Your task to perform on an android device: Go to location settings Image 0: 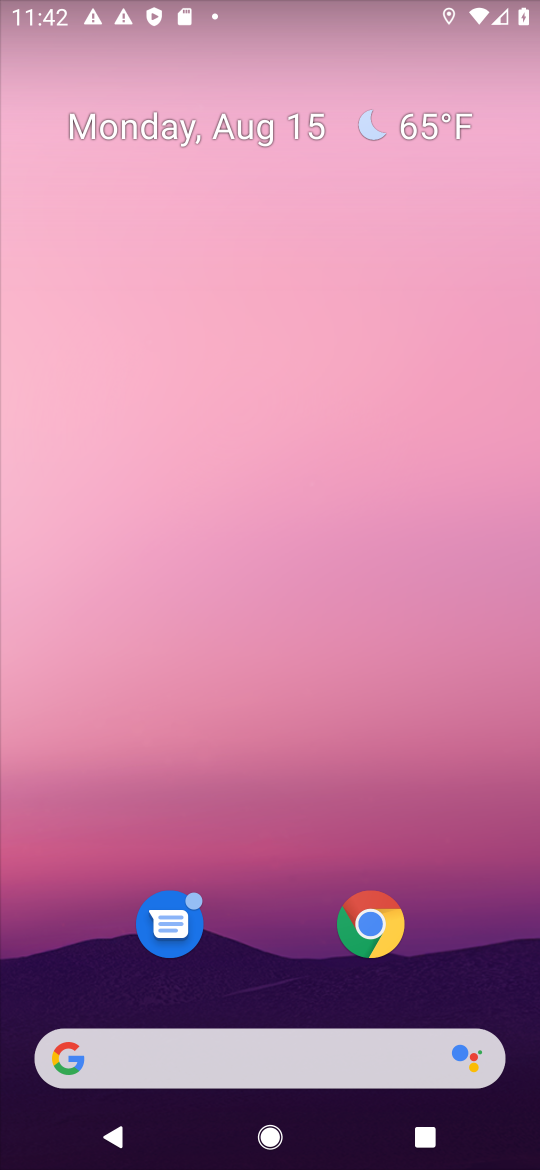
Step 0: press home button
Your task to perform on an android device: Go to location settings Image 1: 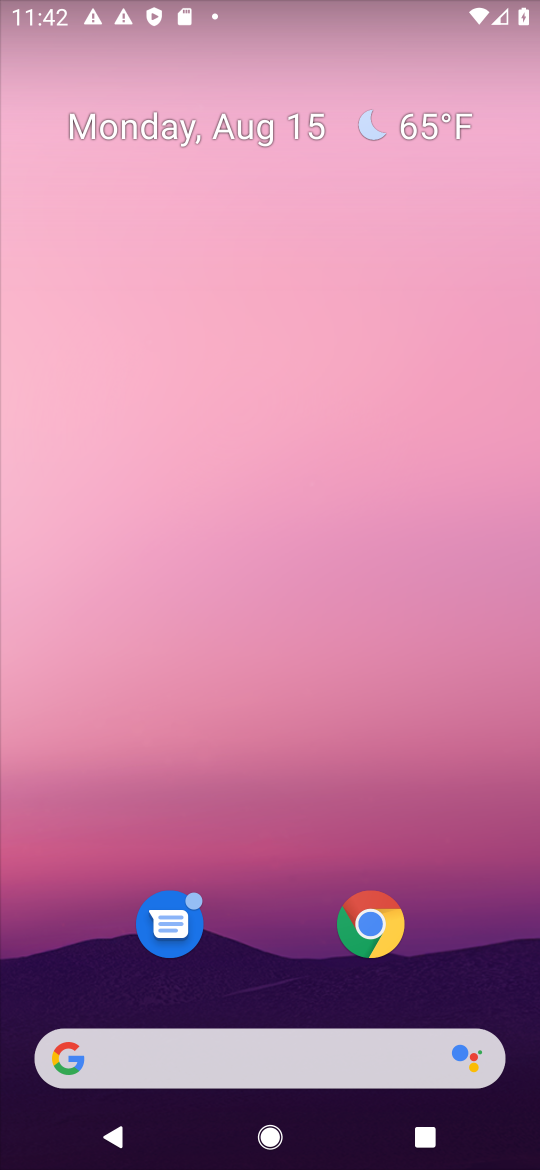
Step 1: click (493, 876)
Your task to perform on an android device: Go to location settings Image 2: 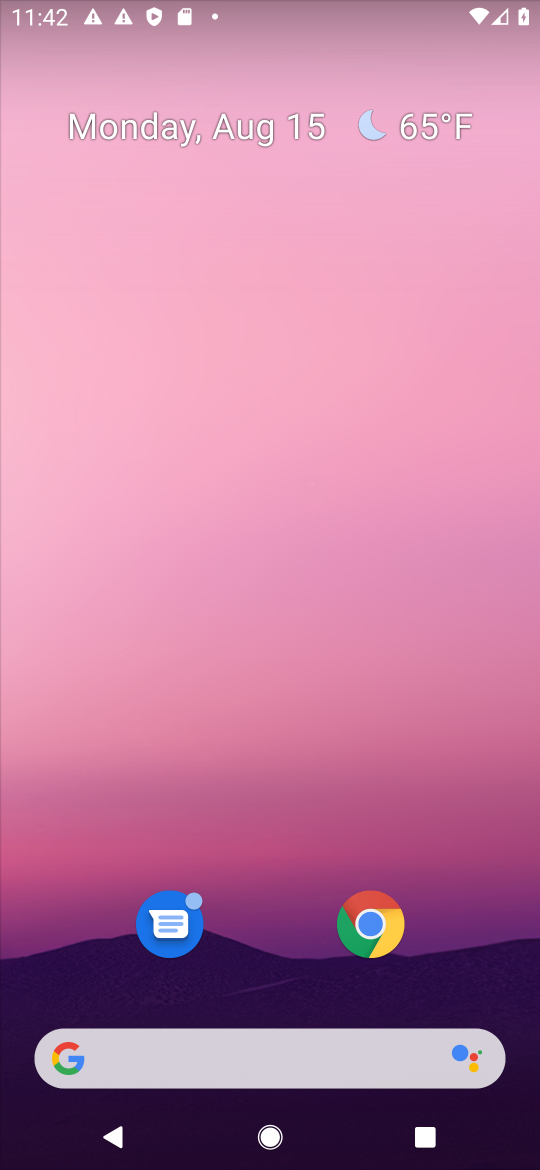
Step 2: drag from (493, 876) to (403, 244)
Your task to perform on an android device: Go to location settings Image 3: 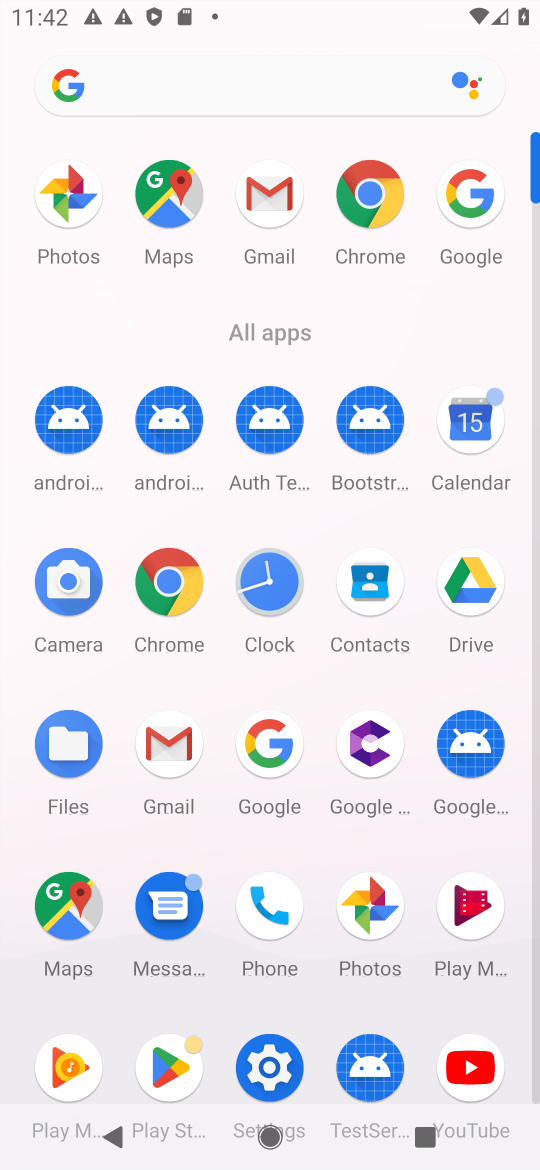
Step 3: click (278, 1073)
Your task to perform on an android device: Go to location settings Image 4: 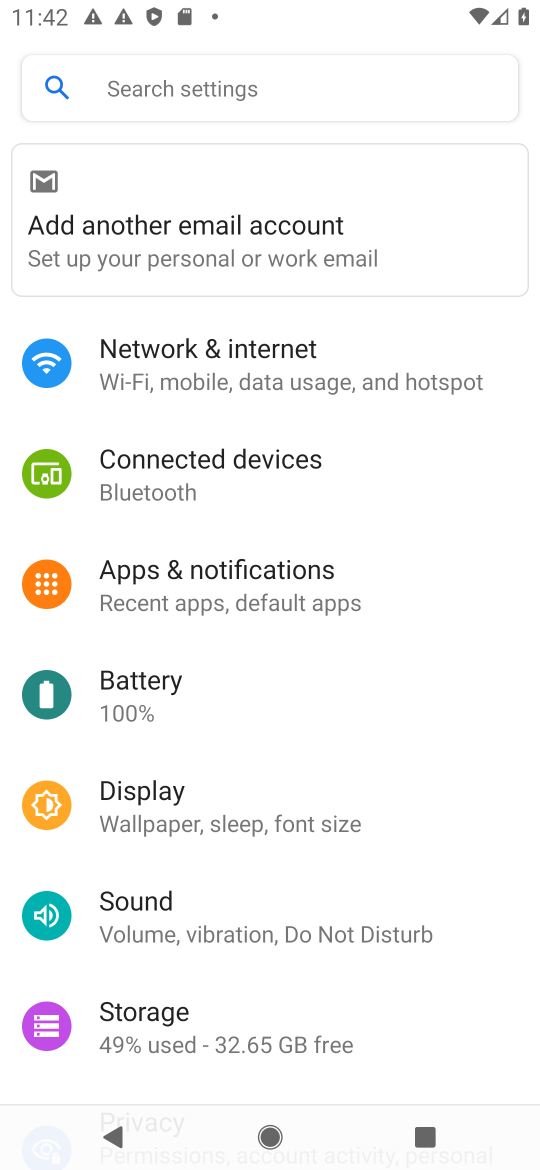
Step 4: drag from (364, 993) to (331, 570)
Your task to perform on an android device: Go to location settings Image 5: 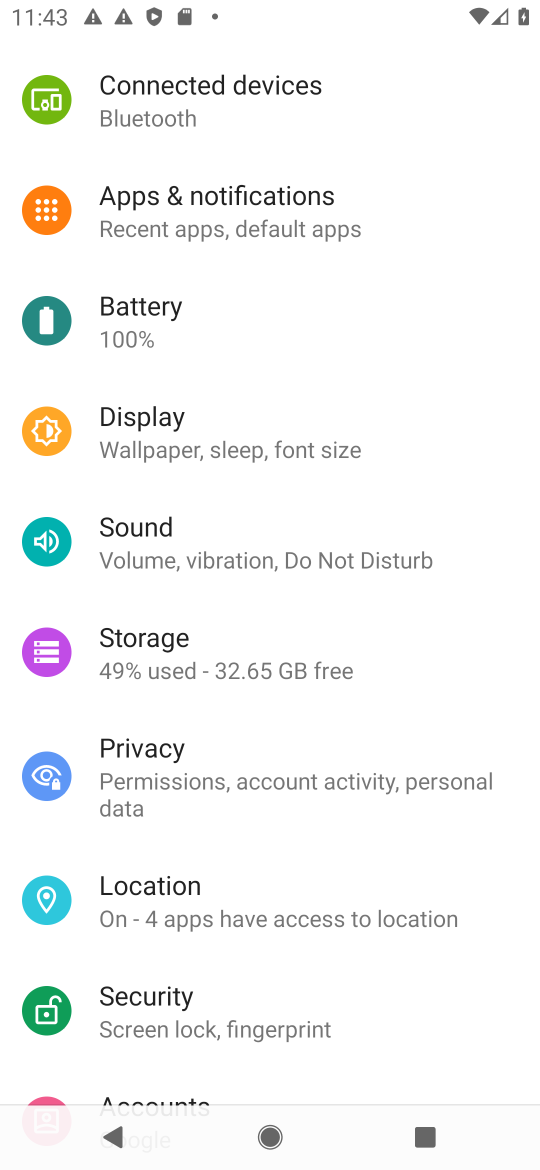
Step 5: click (200, 923)
Your task to perform on an android device: Go to location settings Image 6: 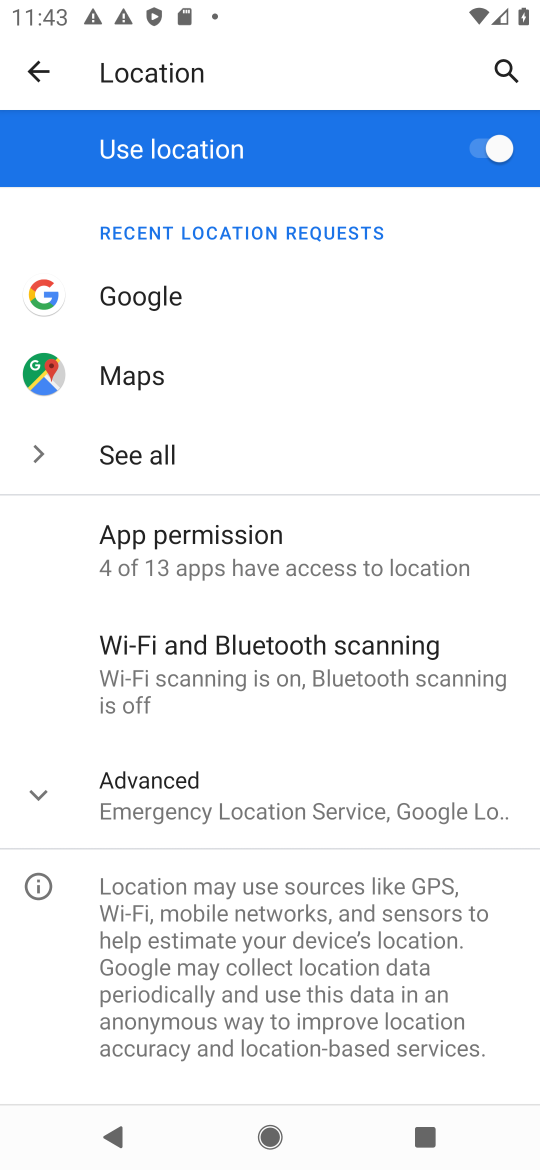
Step 6: task complete